Your task to perform on an android device: change the clock display to analog Image 0: 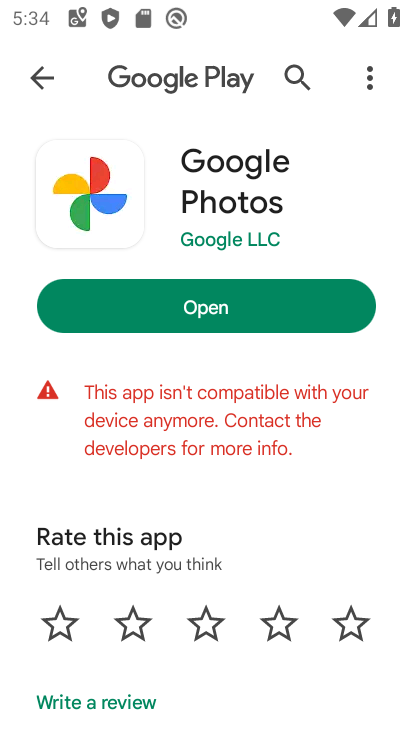
Step 0: click (49, 77)
Your task to perform on an android device: change the clock display to analog Image 1: 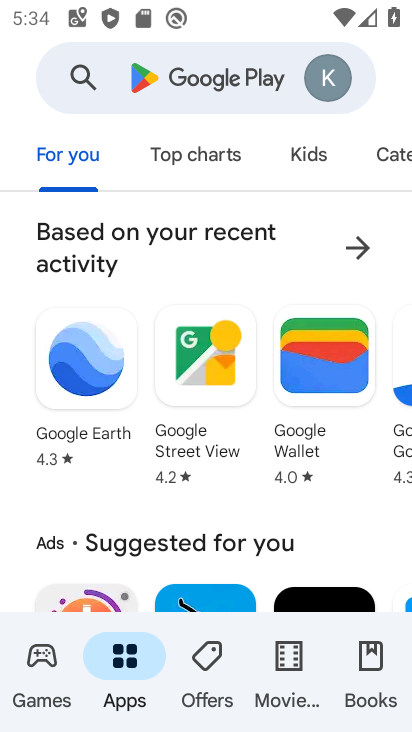
Step 1: press home button
Your task to perform on an android device: change the clock display to analog Image 2: 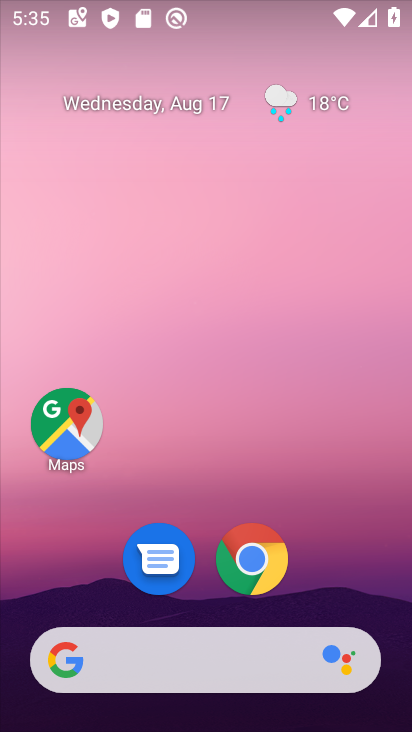
Step 2: drag from (210, 681) to (193, 313)
Your task to perform on an android device: change the clock display to analog Image 3: 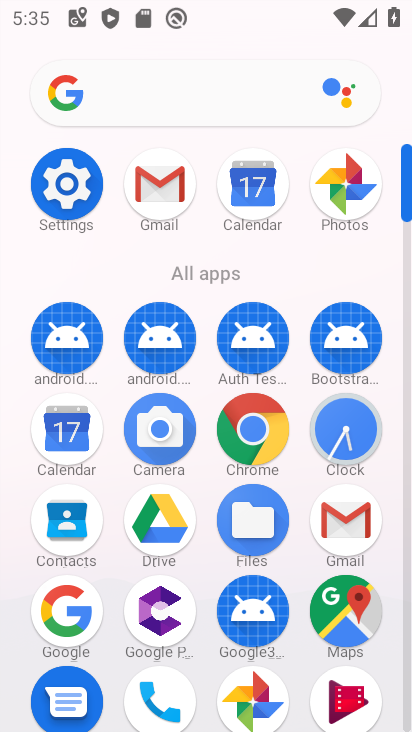
Step 3: click (361, 440)
Your task to perform on an android device: change the clock display to analog Image 4: 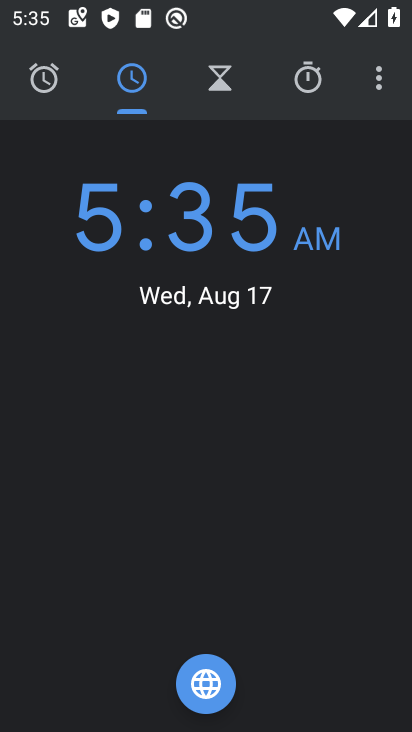
Step 4: click (389, 77)
Your task to perform on an android device: change the clock display to analog Image 5: 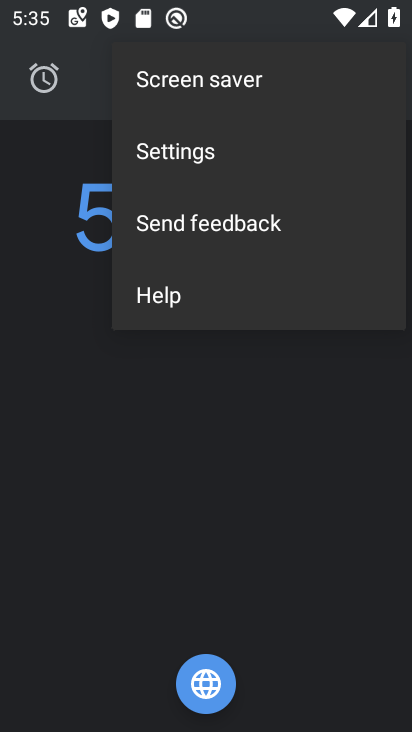
Step 5: click (168, 163)
Your task to perform on an android device: change the clock display to analog Image 6: 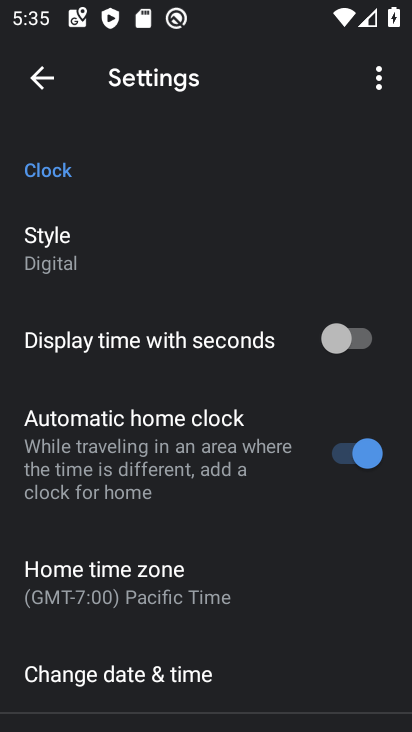
Step 6: click (57, 255)
Your task to perform on an android device: change the clock display to analog Image 7: 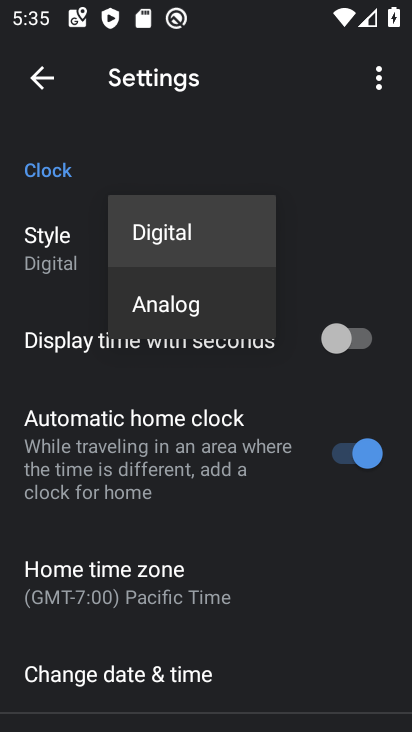
Step 7: click (164, 319)
Your task to perform on an android device: change the clock display to analog Image 8: 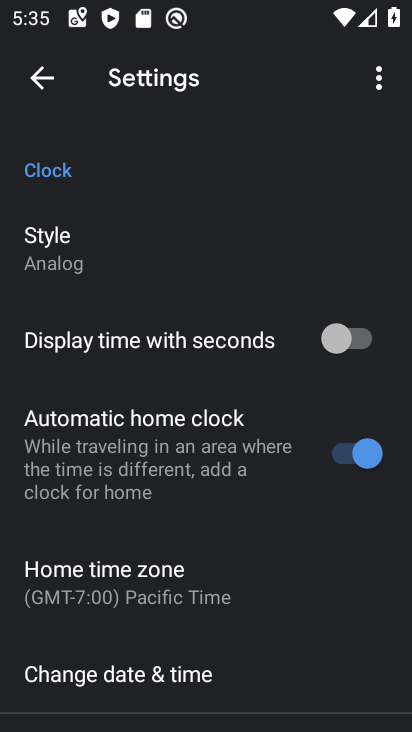
Step 8: task complete